Your task to perform on an android device: Check the price on the Dyson V11 Motorhead on Best Buy Image 0: 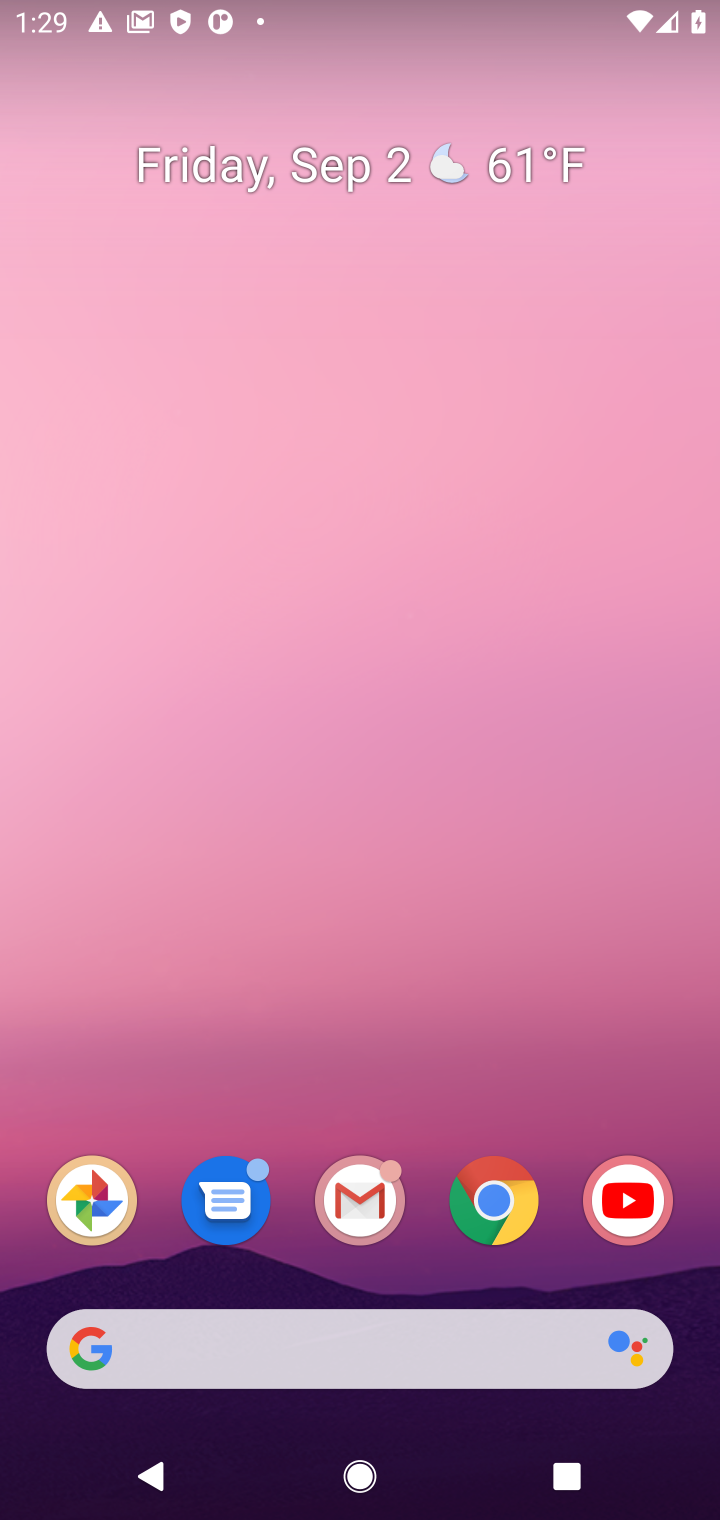
Step 0: click (501, 1202)
Your task to perform on an android device: Check the price on the Dyson V11 Motorhead on Best Buy Image 1: 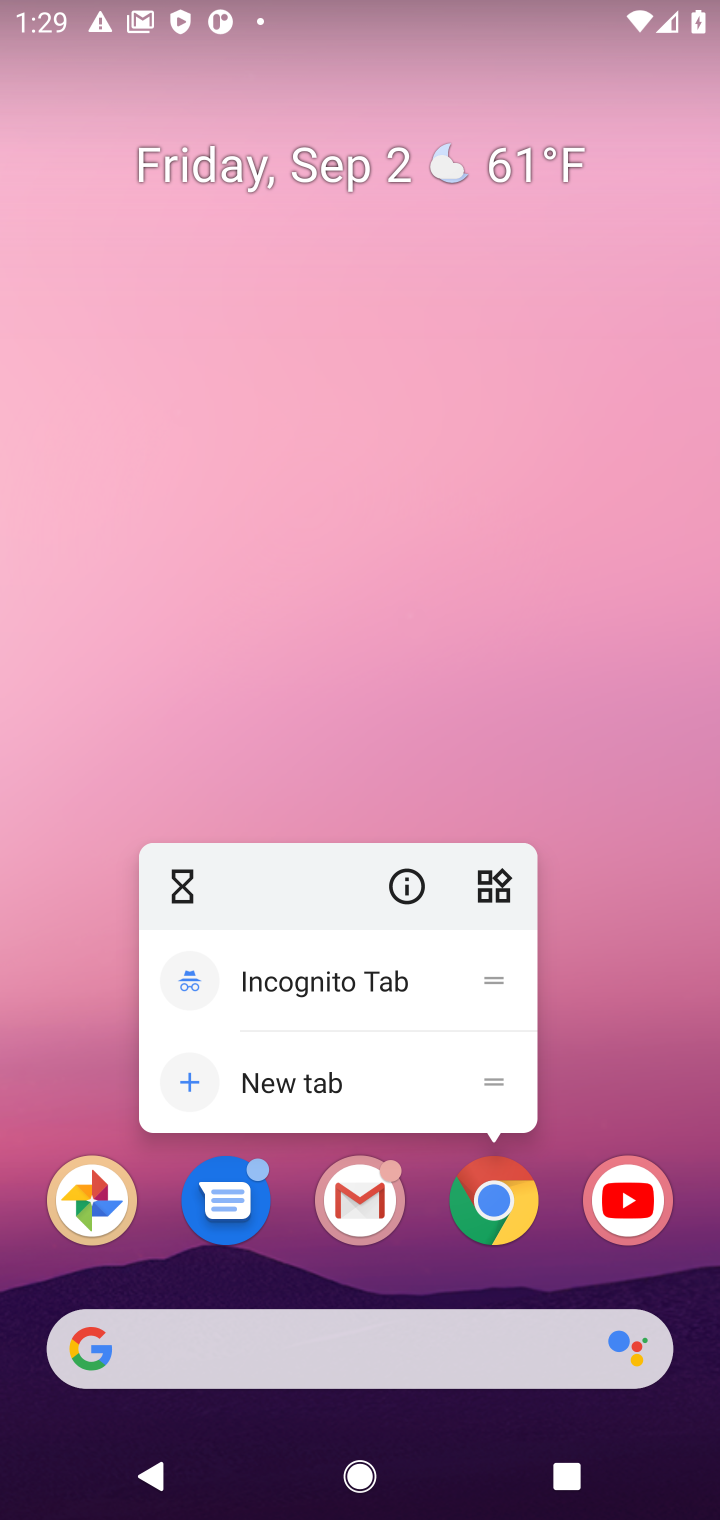
Step 1: click (501, 1202)
Your task to perform on an android device: Check the price on the Dyson V11 Motorhead on Best Buy Image 2: 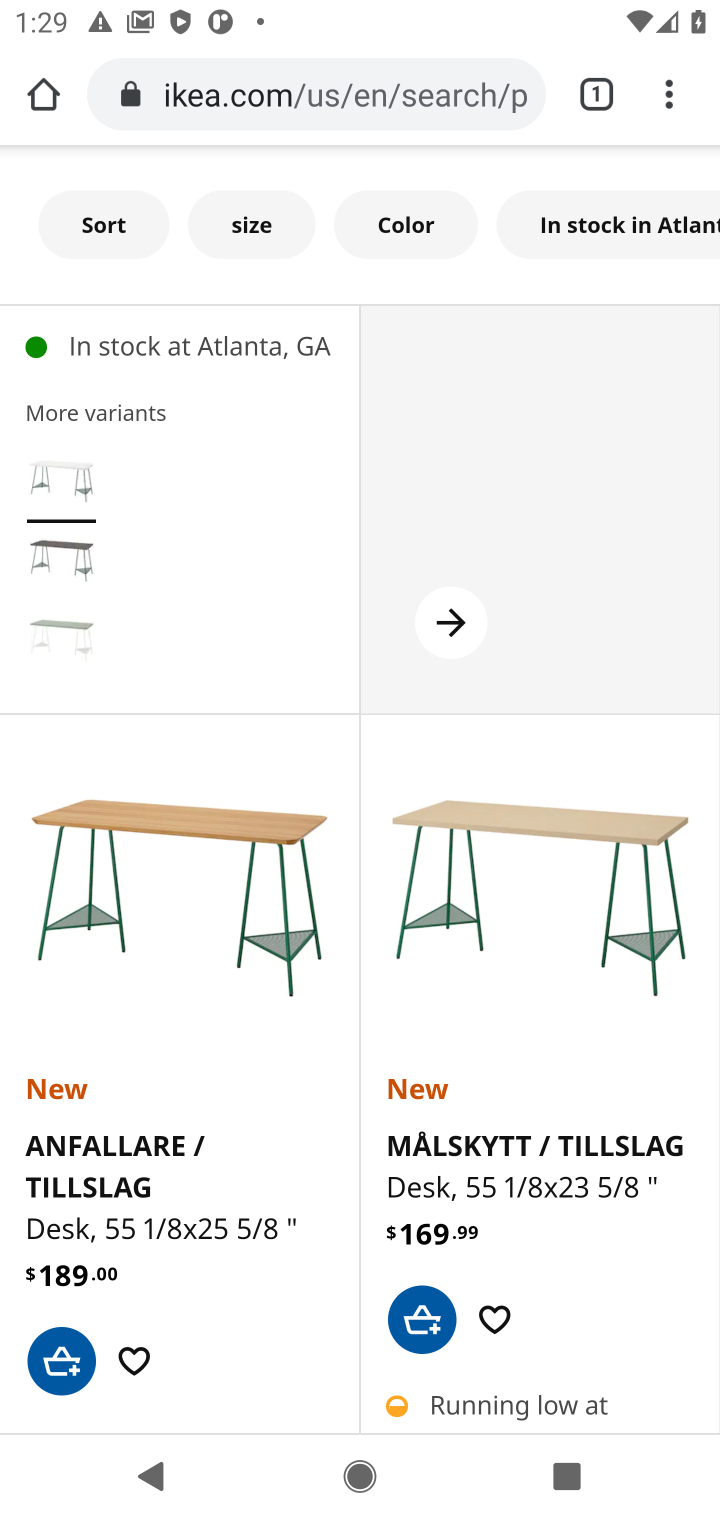
Step 2: click (294, 100)
Your task to perform on an android device: Check the price on the Dyson V11 Motorhead on Best Buy Image 3: 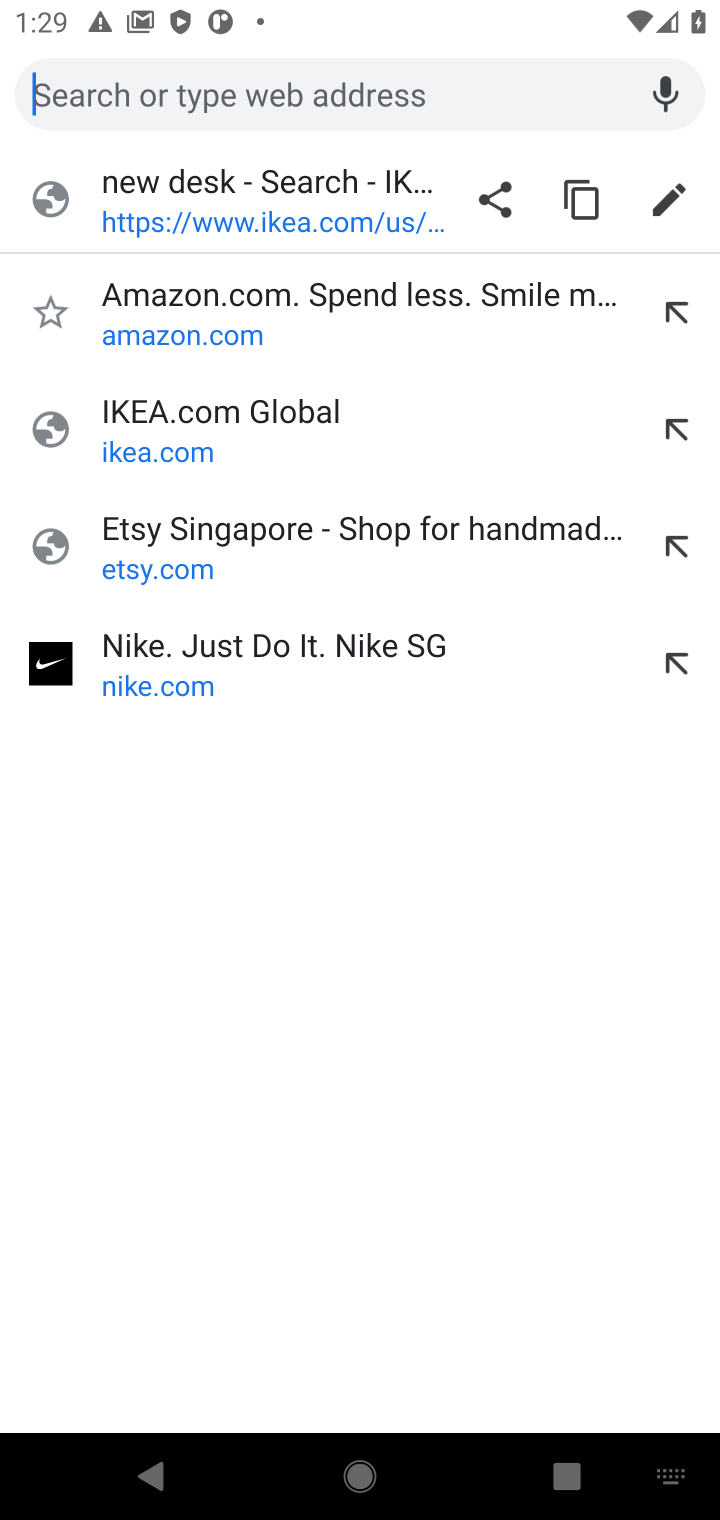
Step 3: click (264, 64)
Your task to perform on an android device: Check the price on the Dyson V11 Motorhead on Best Buy Image 4: 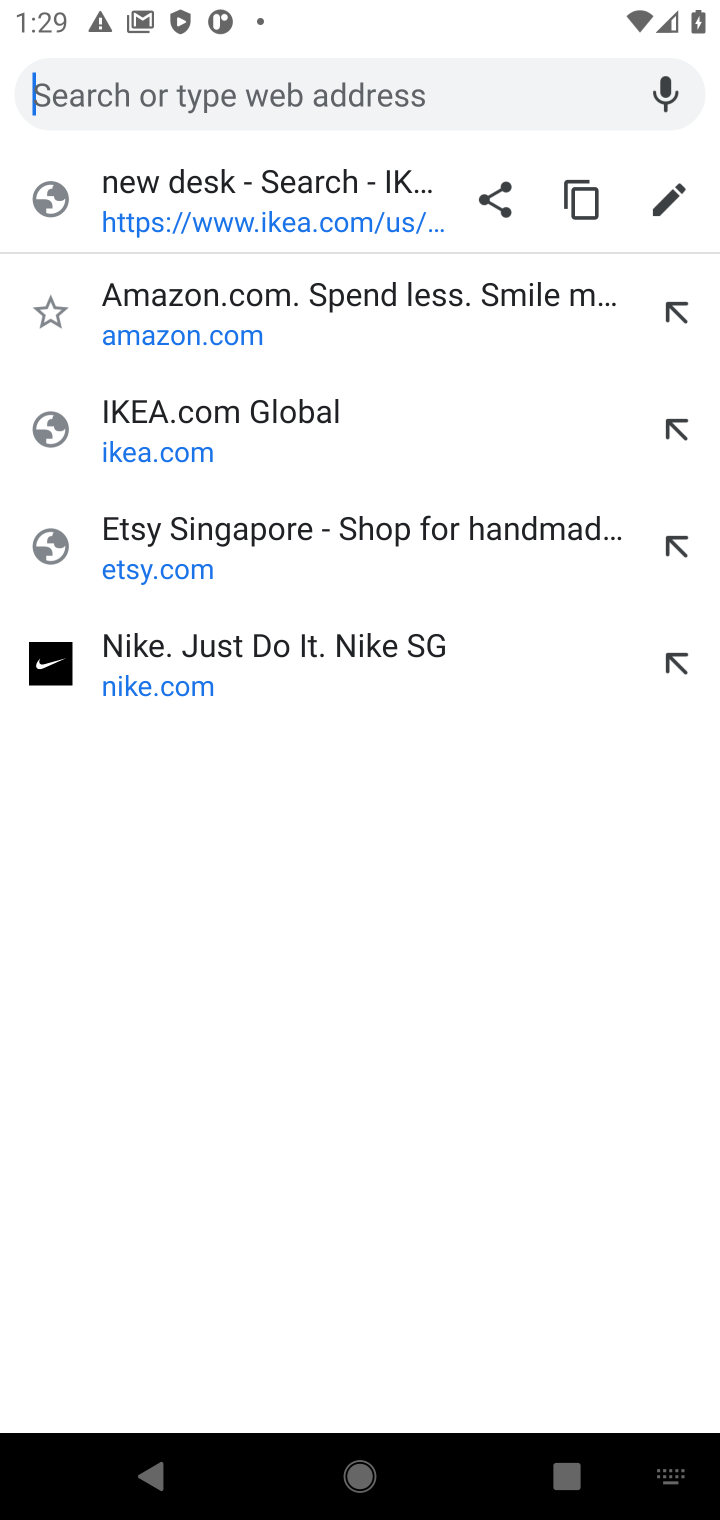
Step 4: click (256, 85)
Your task to perform on an android device: Check the price on the Dyson V11 Motorhead on Best Buy Image 5: 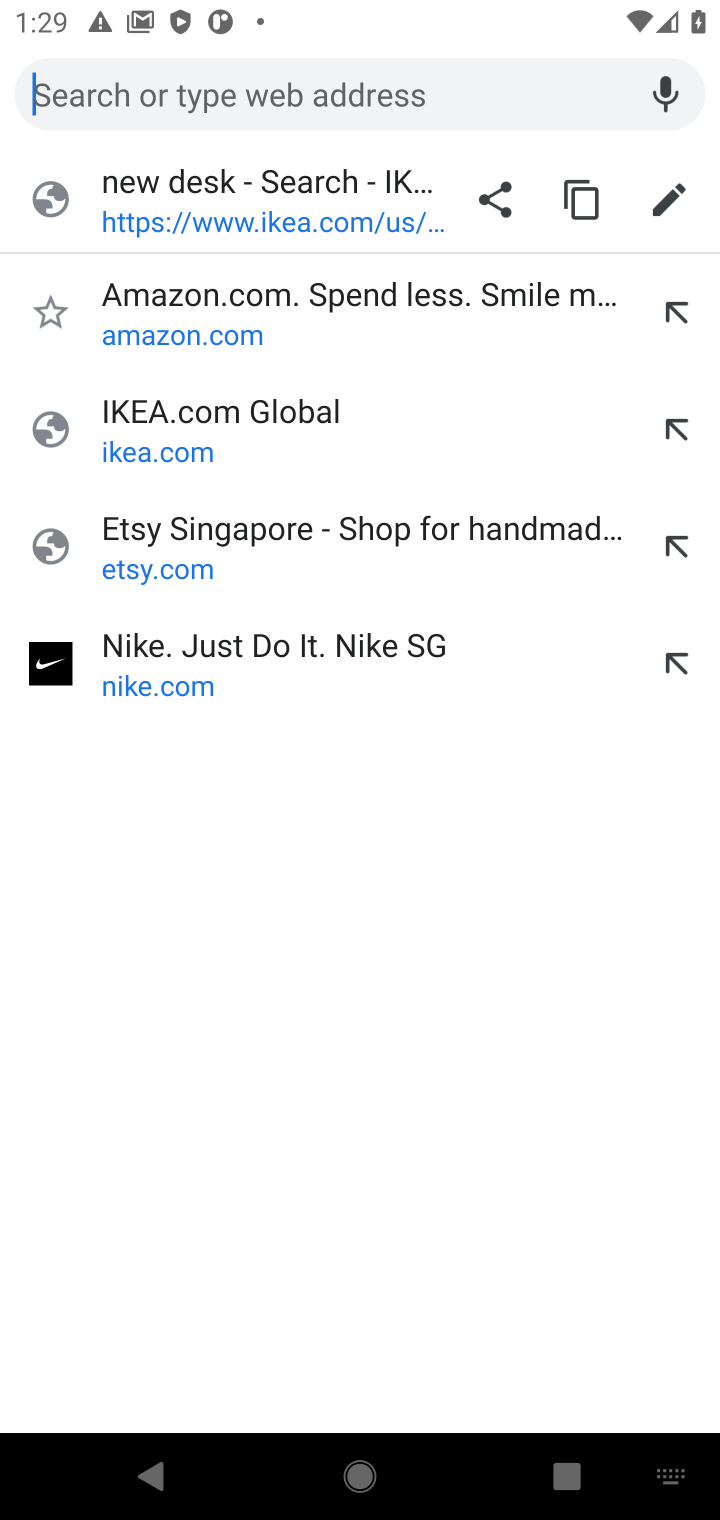
Step 5: type "Best Buy"
Your task to perform on an android device: Check the price on the Dyson V11 Motorhead on Best Buy Image 6: 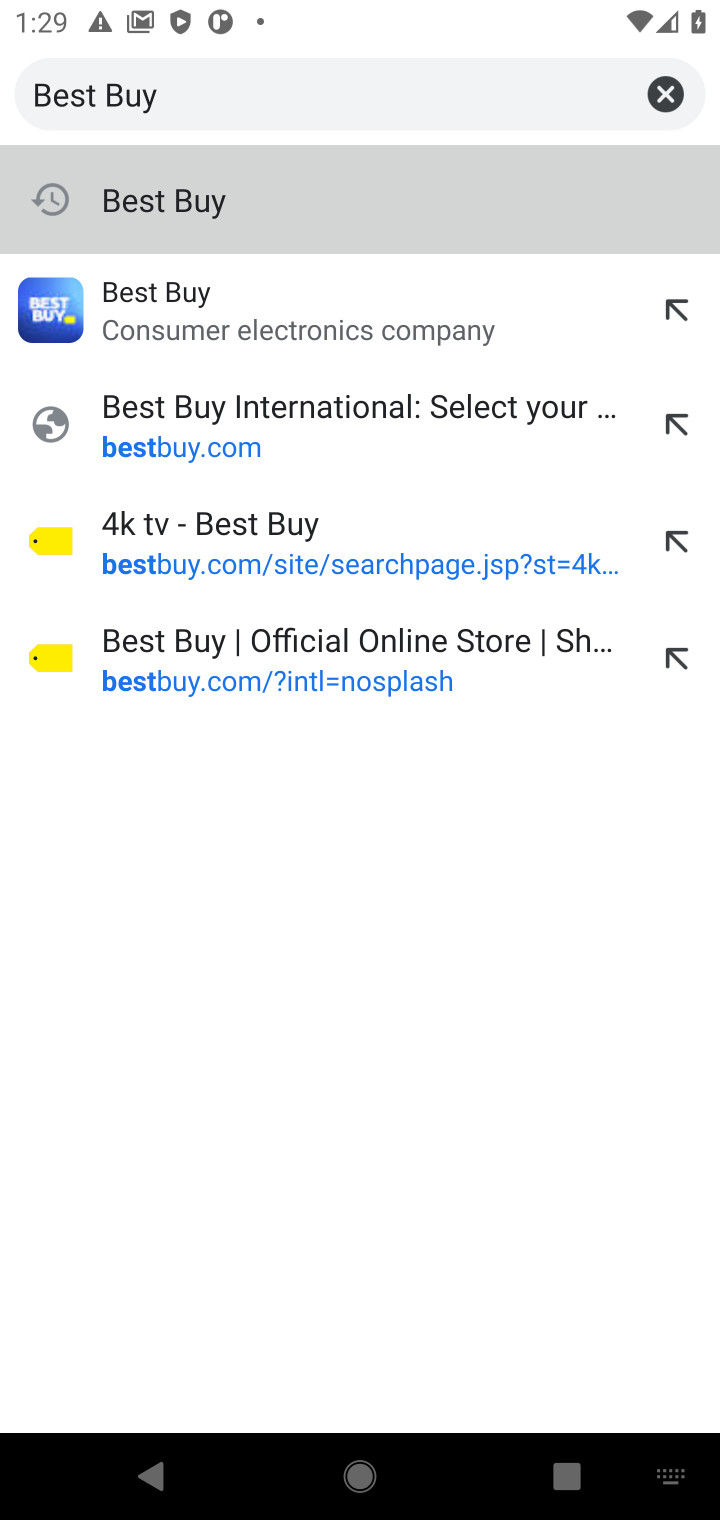
Step 6: press enter
Your task to perform on an android device: Check the price on the Dyson V11 Motorhead on Best Buy Image 7: 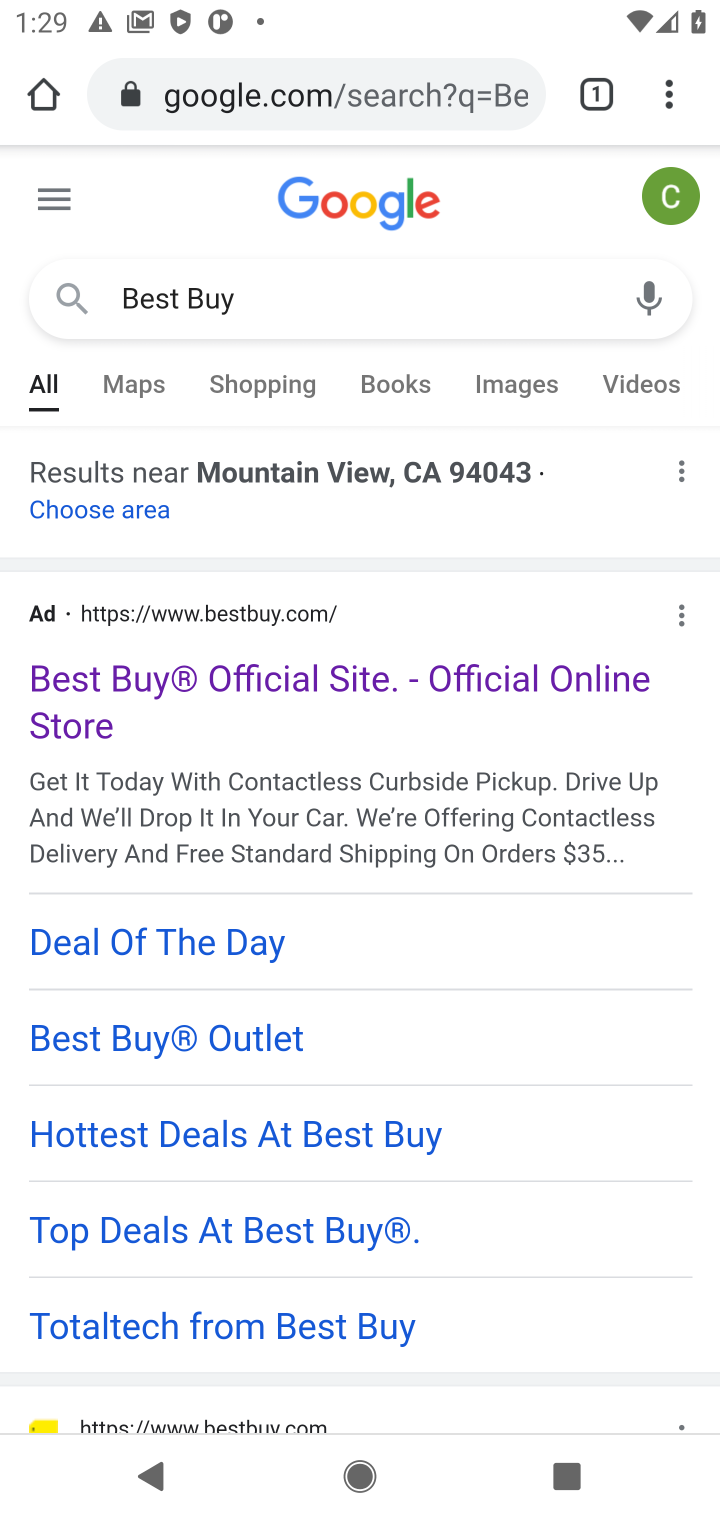
Step 7: drag from (345, 1197) to (405, 334)
Your task to perform on an android device: Check the price on the Dyson V11 Motorhead on Best Buy Image 8: 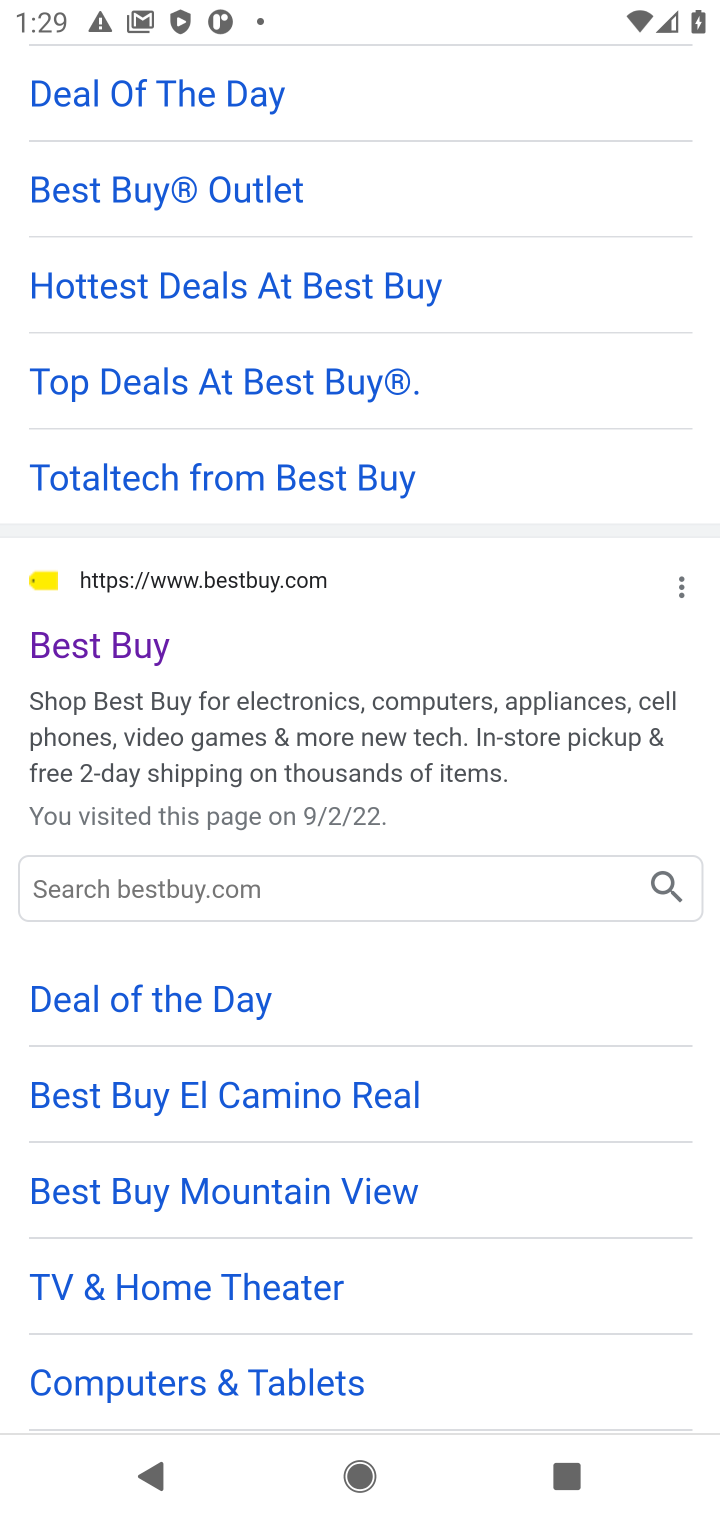
Step 8: click (115, 643)
Your task to perform on an android device: Check the price on the Dyson V11 Motorhead on Best Buy Image 9: 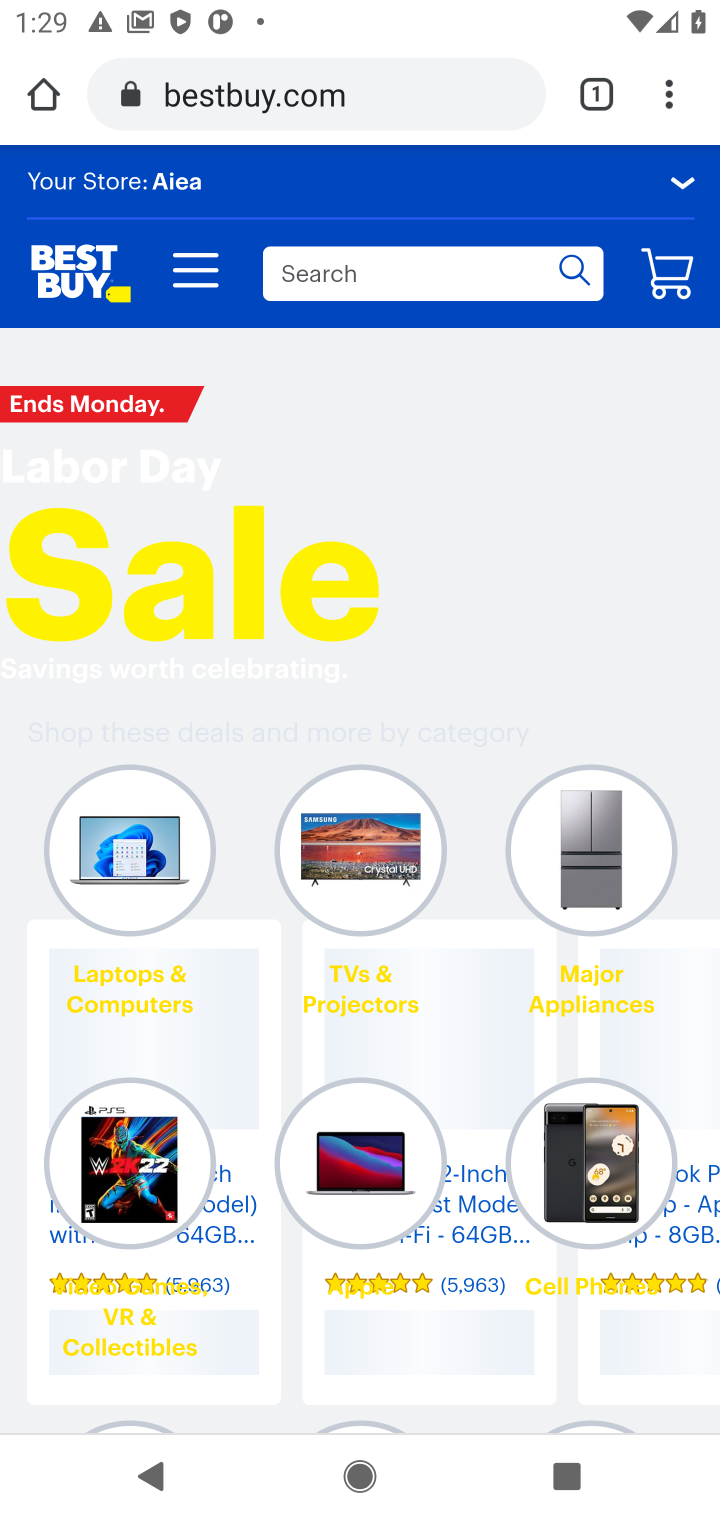
Step 9: click (383, 259)
Your task to perform on an android device: Check the price on the Dyson V11 Motorhead on Best Buy Image 10: 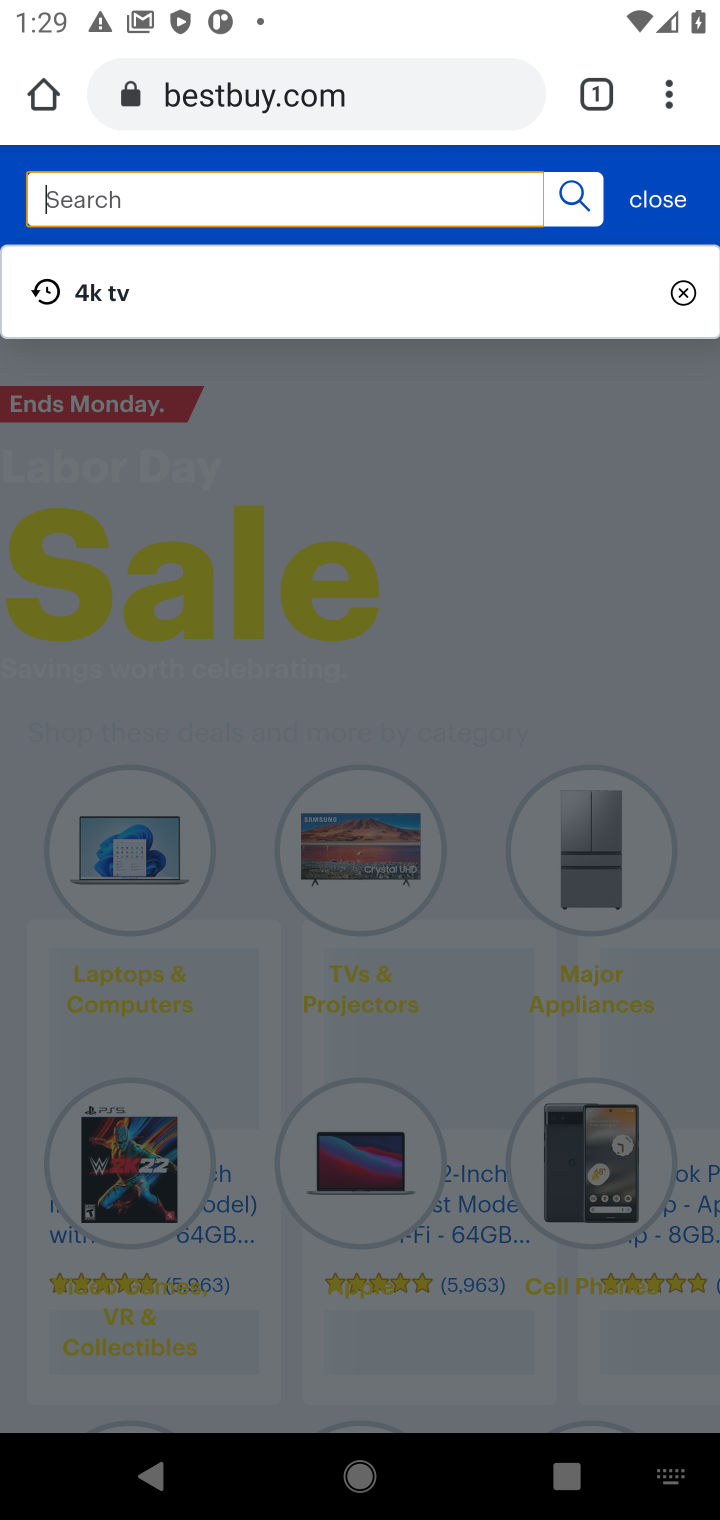
Step 10: click (383, 270)
Your task to perform on an android device: Check the price on the Dyson V11 Motorhead on Best Buy Image 11: 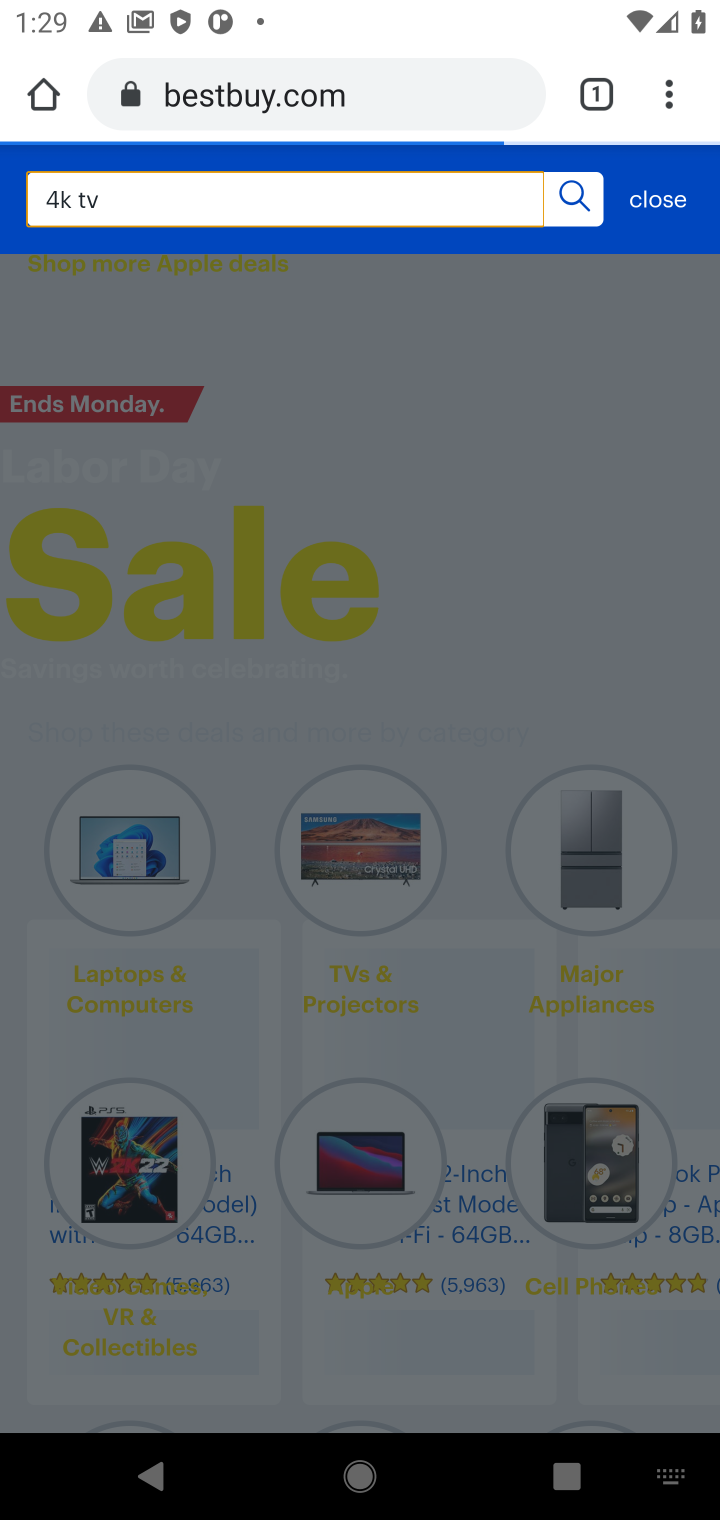
Step 11: click (383, 189)
Your task to perform on an android device: Check the price on the Dyson V11 Motorhead on Best Buy Image 12: 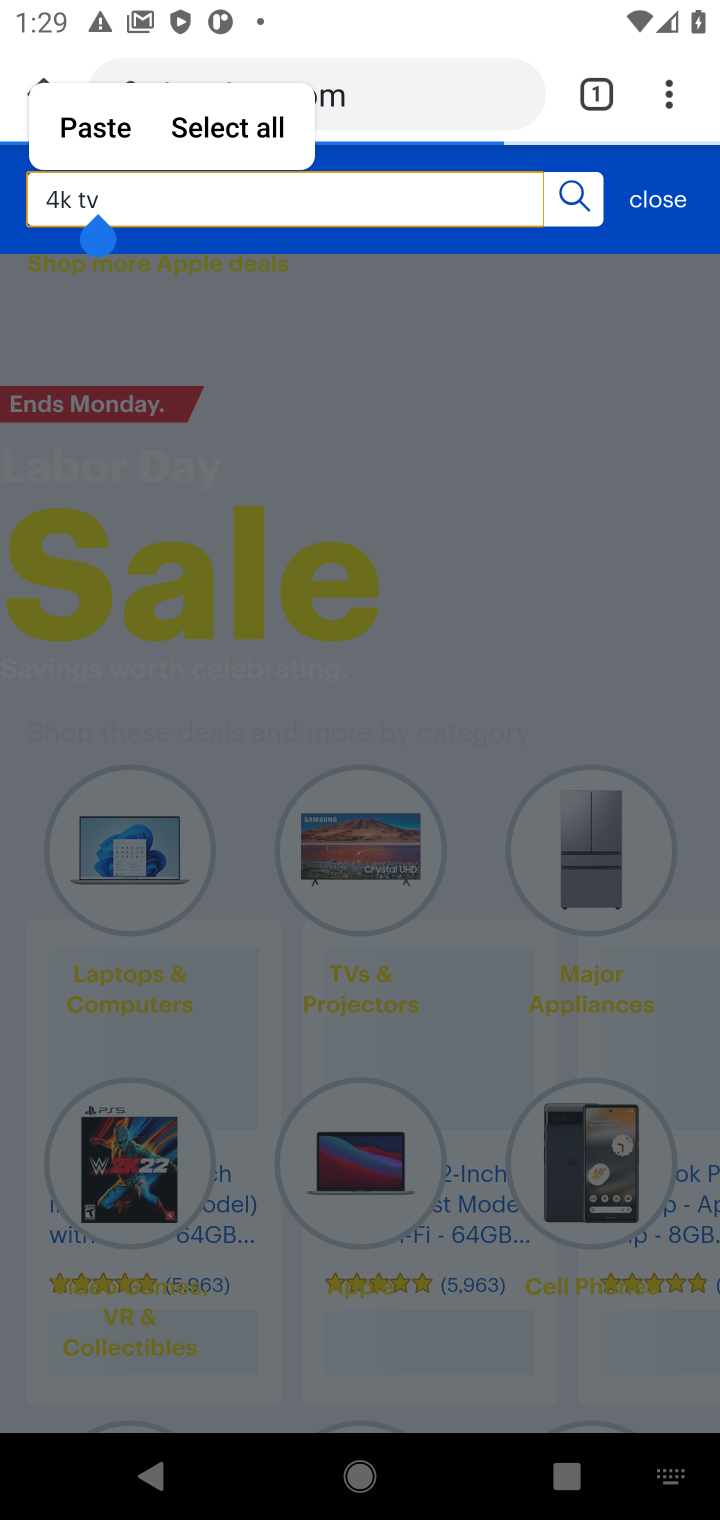
Step 12: click (573, 177)
Your task to perform on an android device: Check the price on the Dyson V11 Motorhead on Best Buy Image 13: 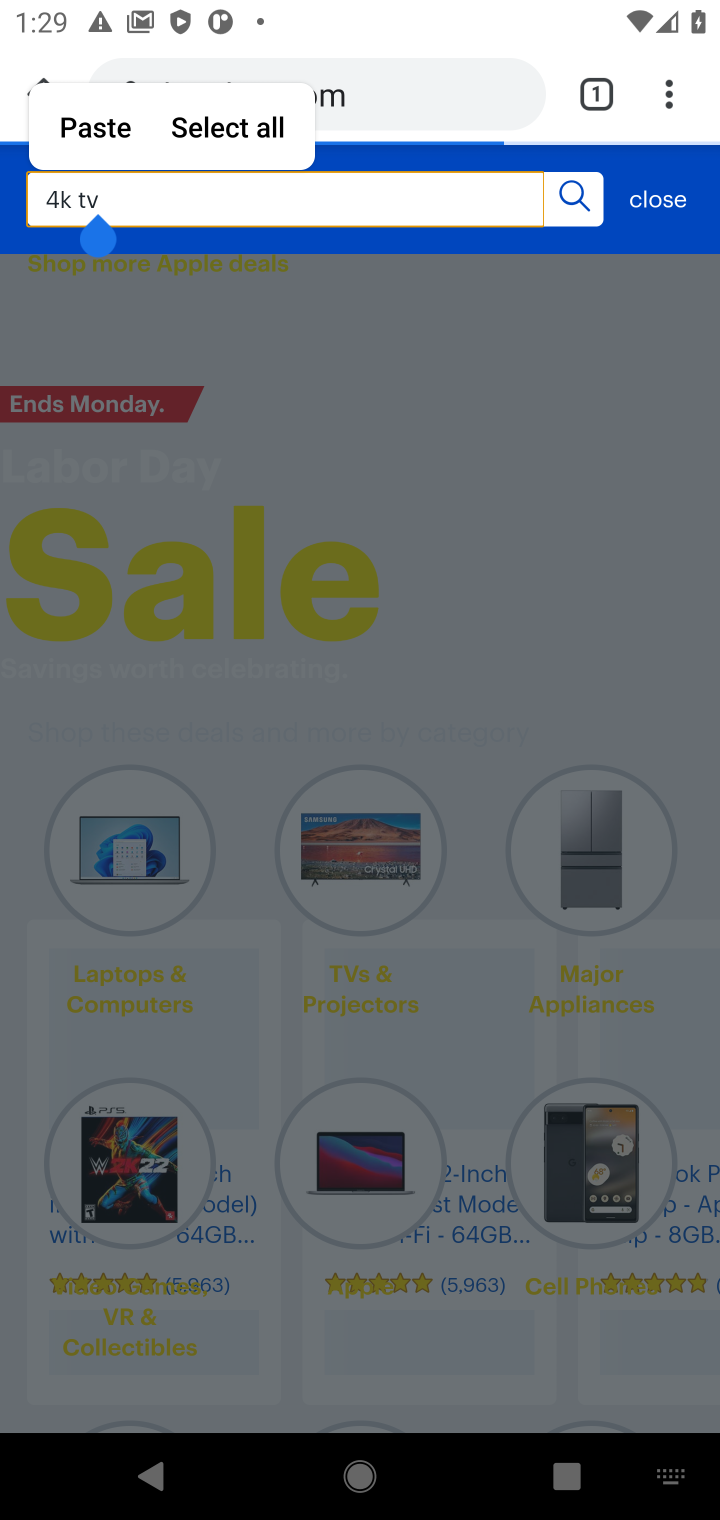
Step 13: click (493, 212)
Your task to perform on an android device: Check the price on the Dyson V11 Motorhead on Best Buy Image 14: 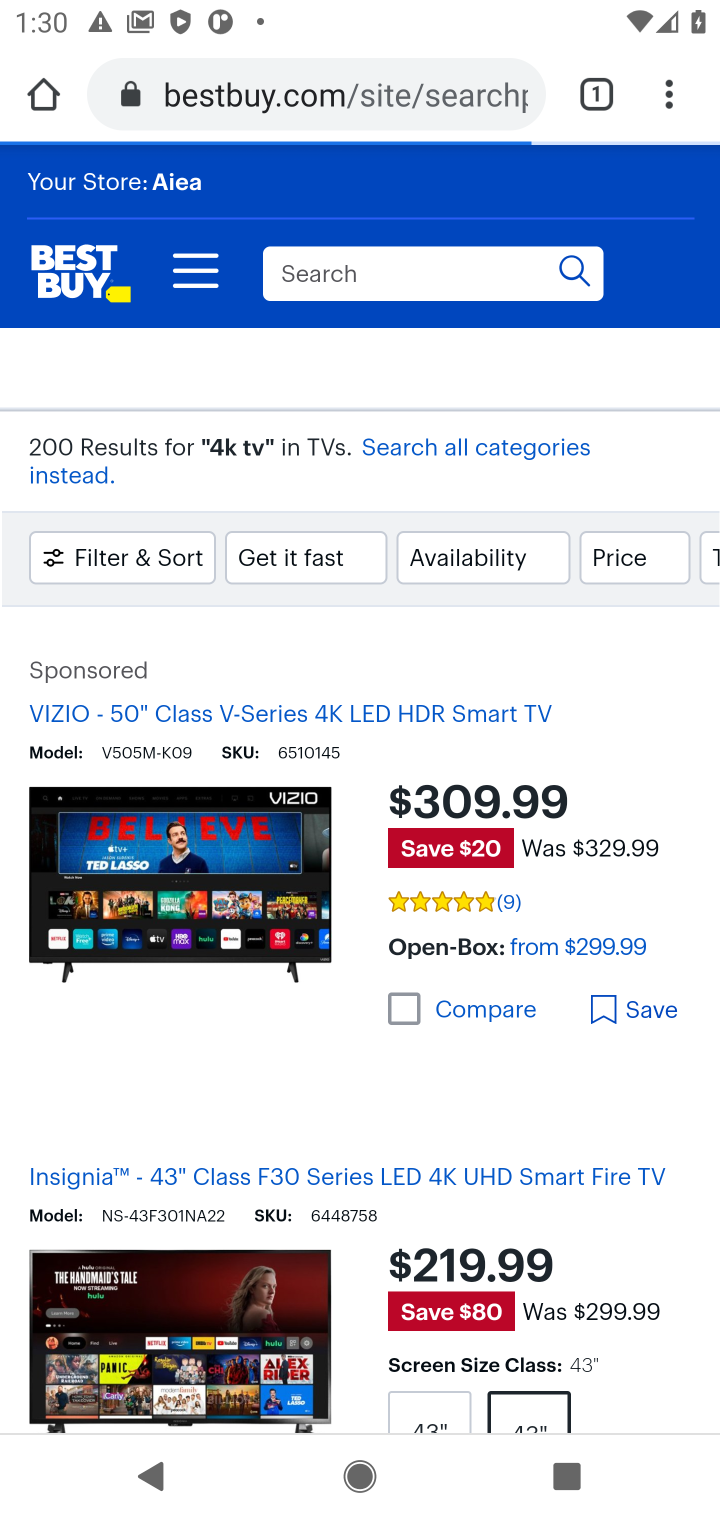
Step 14: click (396, 269)
Your task to perform on an android device: Check the price on the Dyson V11 Motorhead on Best Buy Image 15: 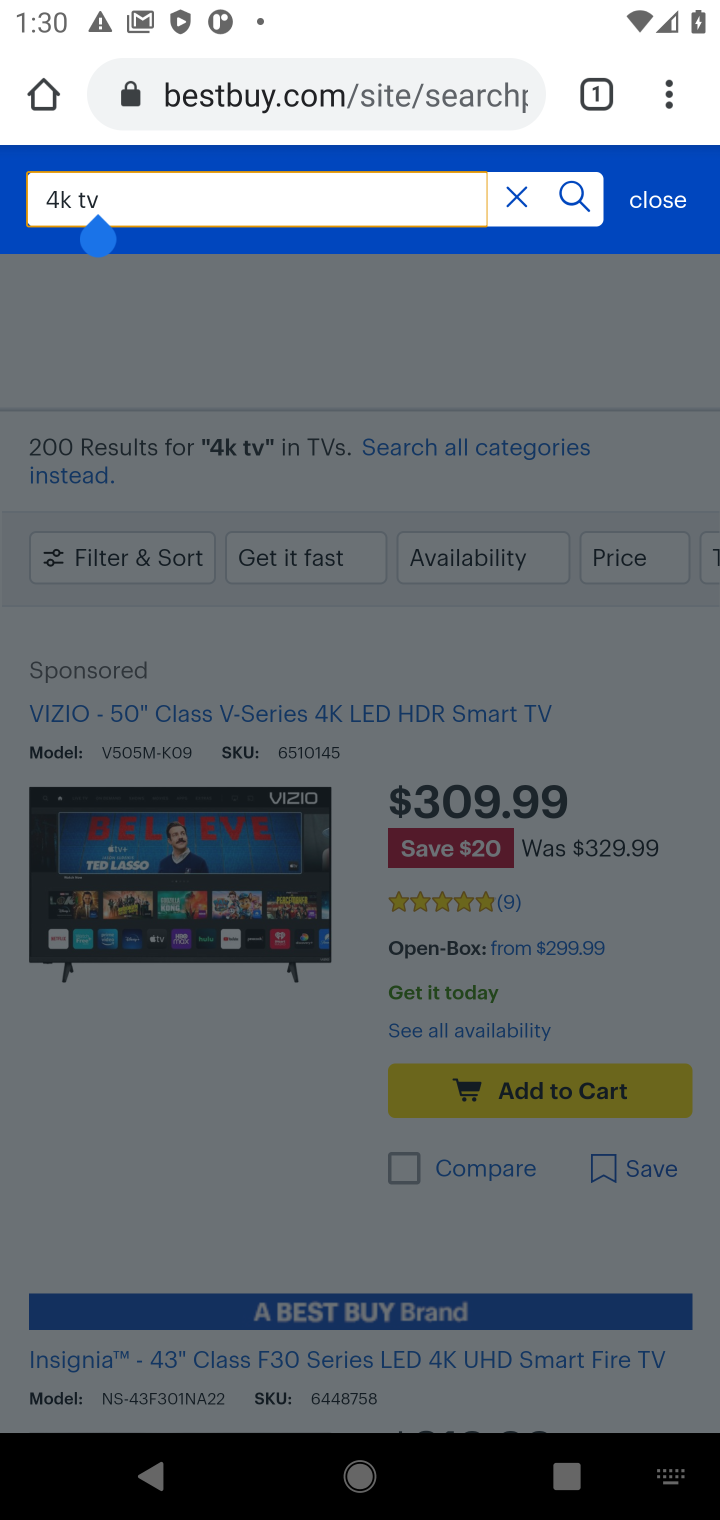
Step 15: click (514, 194)
Your task to perform on an android device: Check the price on the Dyson V11 Motorhead on Best Buy Image 16: 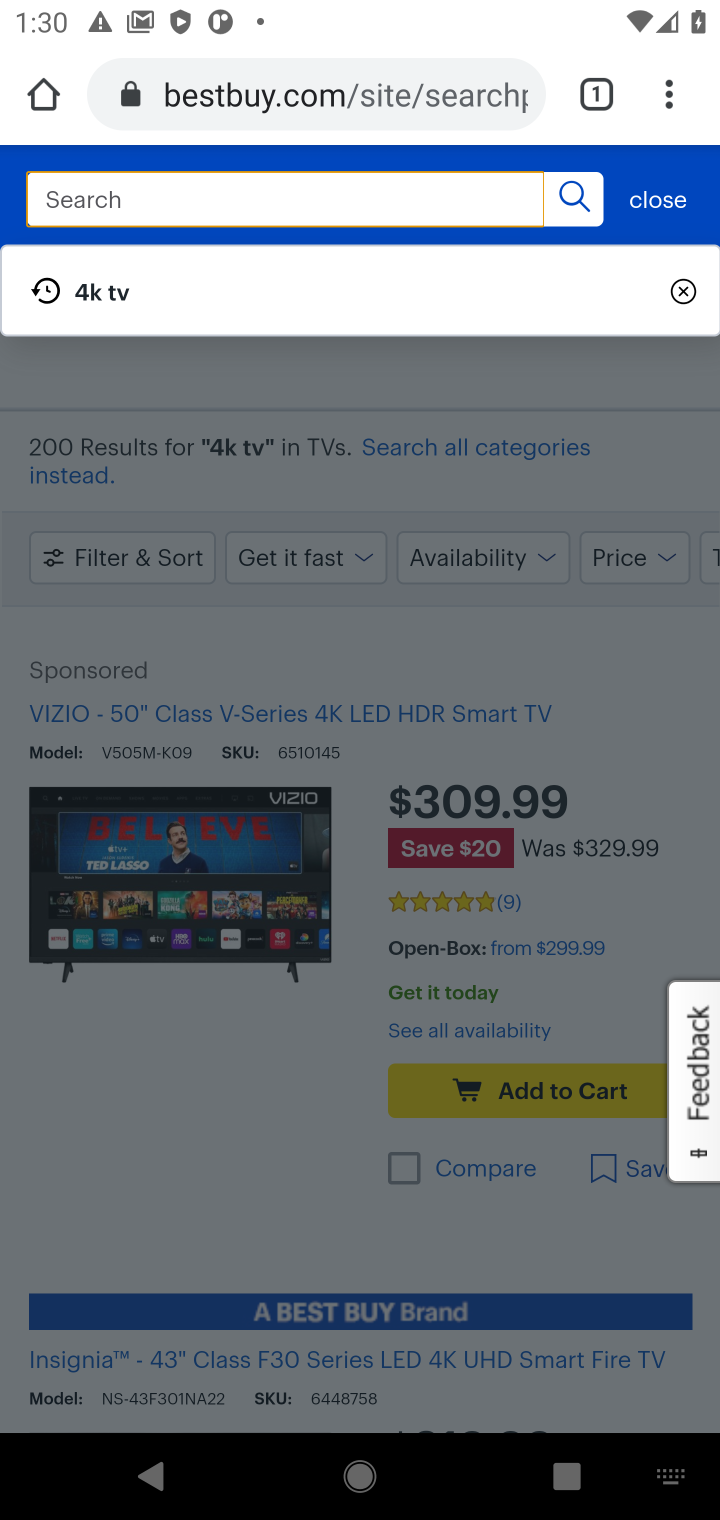
Step 16: type "Dyson V11 Motorhead "
Your task to perform on an android device: Check the price on the Dyson V11 Motorhead on Best Buy Image 17: 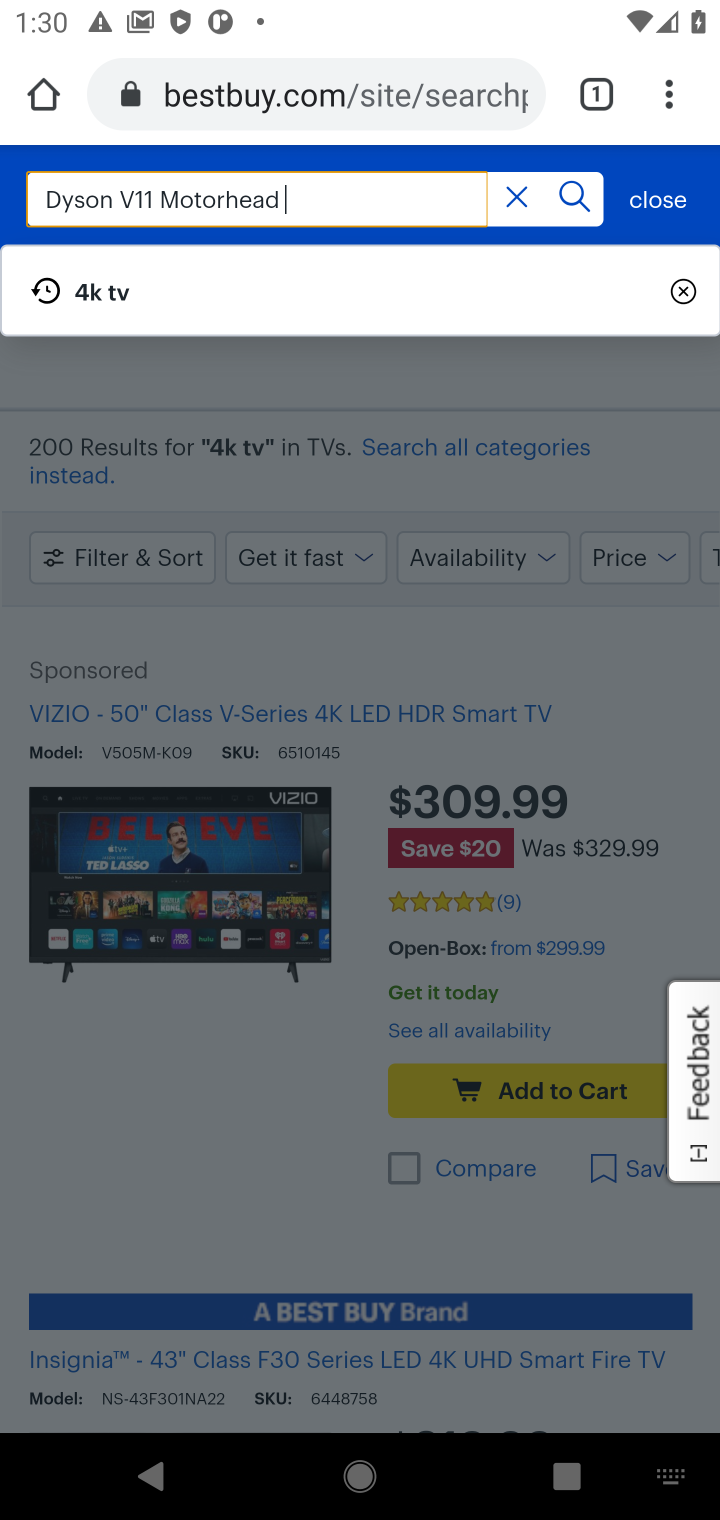
Step 17: press enter
Your task to perform on an android device: Check the price on the Dyson V11 Motorhead on Best Buy Image 18: 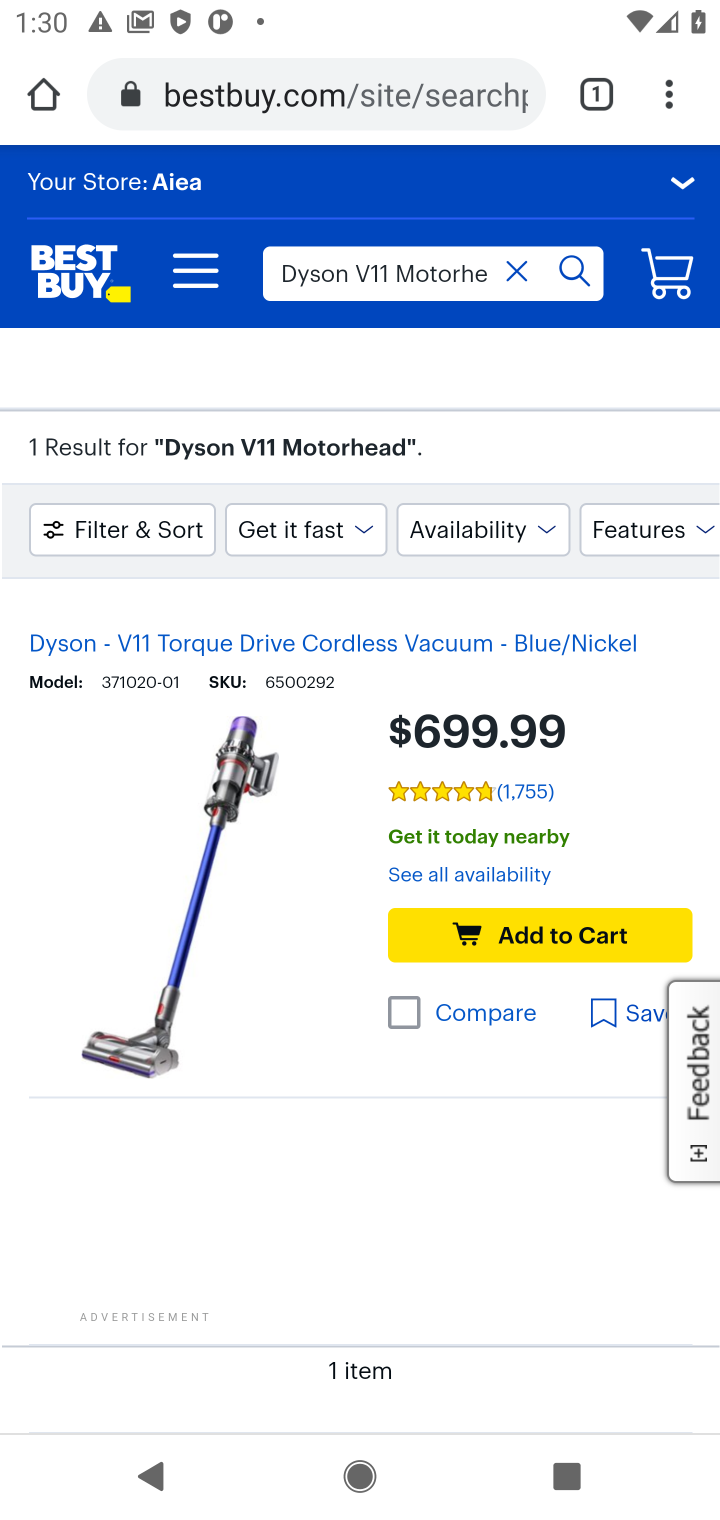
Step 18: task complete